Your task to perform on an android device: toggle translation in the chrome app Image 0: 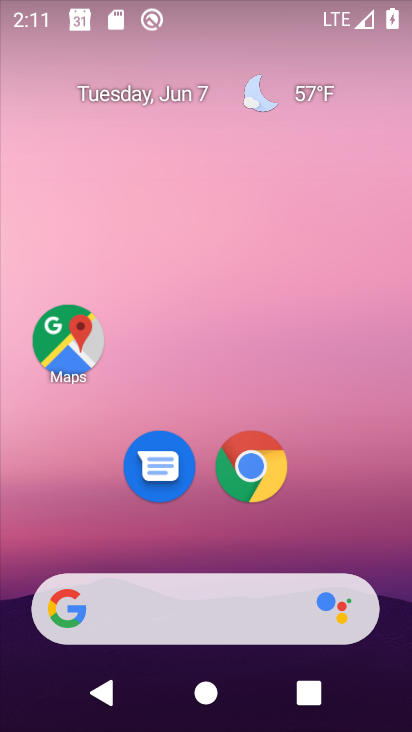
Step 0: click (268, 469)
Your task to perform on an android device: toggle translation in the chrome app Image 1: 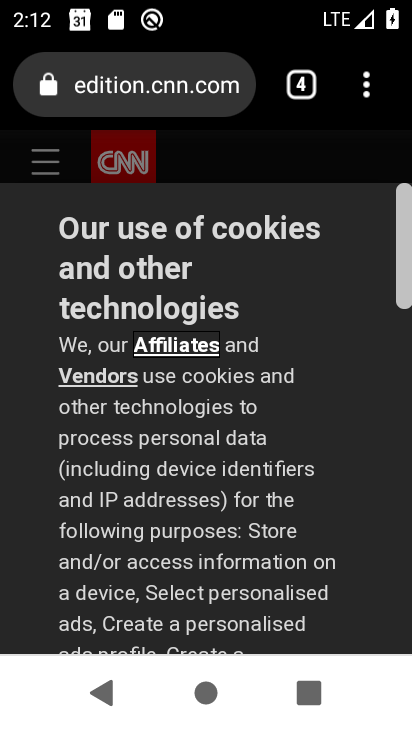
Step 1: drag from (353, 82) to (110, 517)
Your task to perform on an android device: toggle translation in the chrome app Image 2: 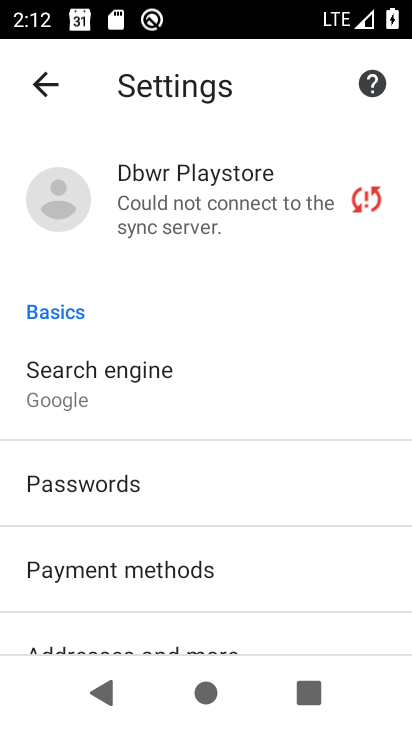
Step 2: drag from (95, 594) to (260, 43)
Your task to perform on an android device: toggle translation in the chrome app Image 3: 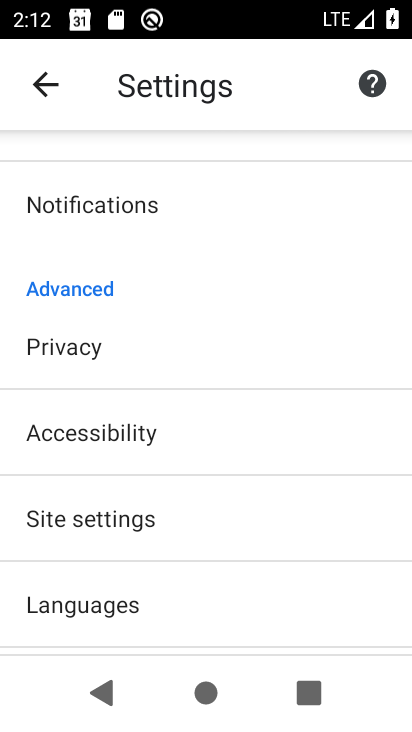
Step 3: click (109, 588)
Your task to perform on an android device: toggle translation in the chrome app Image 4: 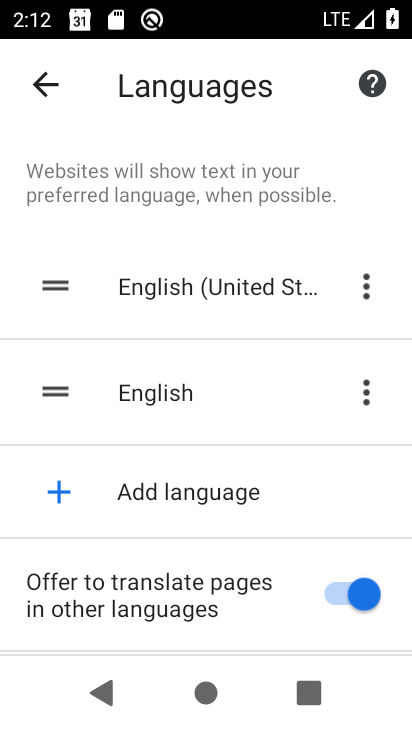
Step 4: click (345, 584)
Your task to perform on an android device: toggle translation in the chrome app Image 5: 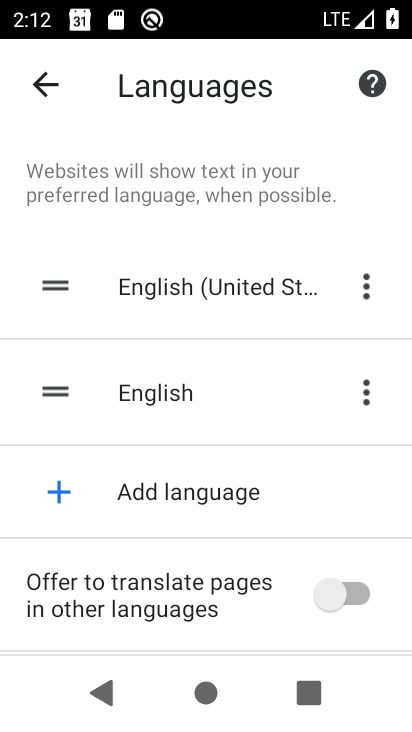
Step 5: task complete